Your task to perform on an android device: delete the emails in spam in the gmail app Image 0: 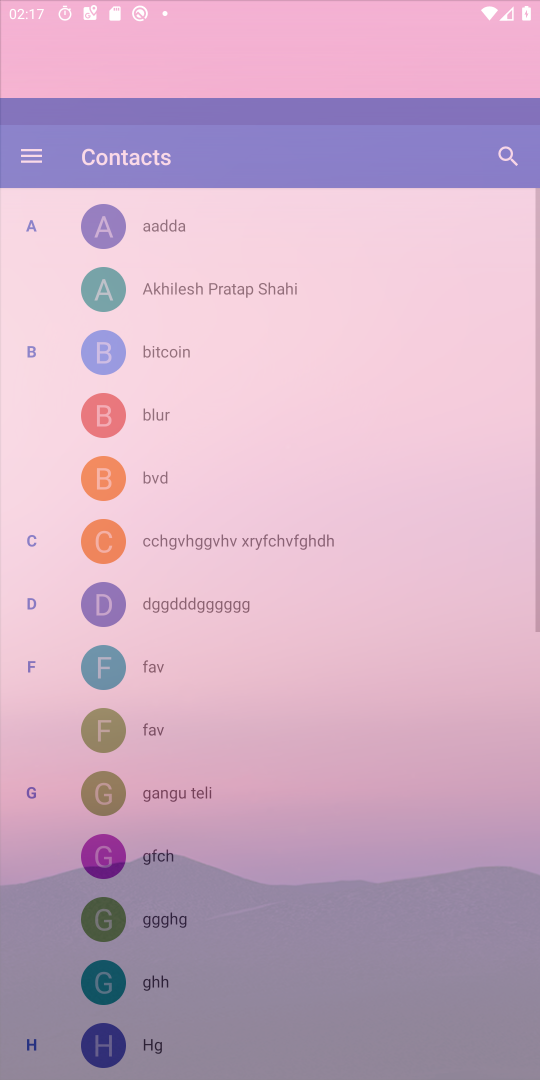
Step 0: press home button
Your task to perform on an android device: delete the emails in spam in the gmail app Image 1: 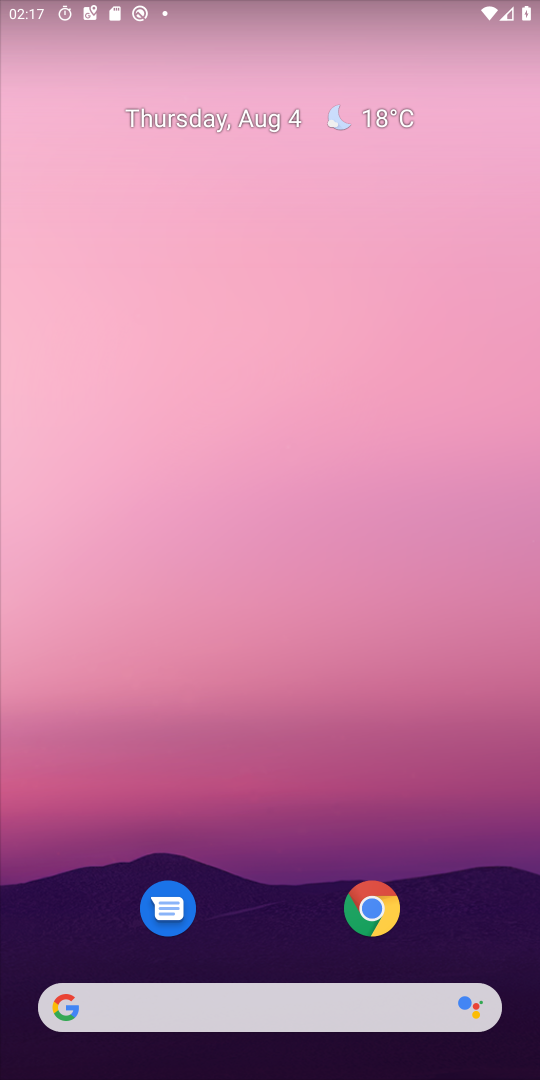
Step 1: drag from (318, 1047) to (283, 252)
Your task to perform on an android device: delete the emails in spam in the gmail app Image 2: 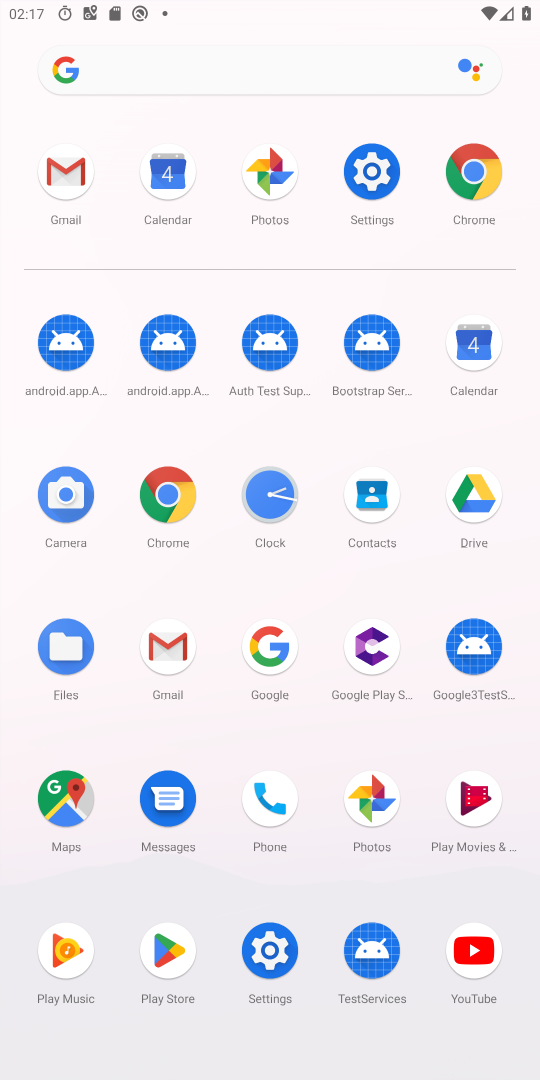
Step 2: click (176, 621)
Your task to perform on an android device: delete the emails in spam in the gmail app Image 3: 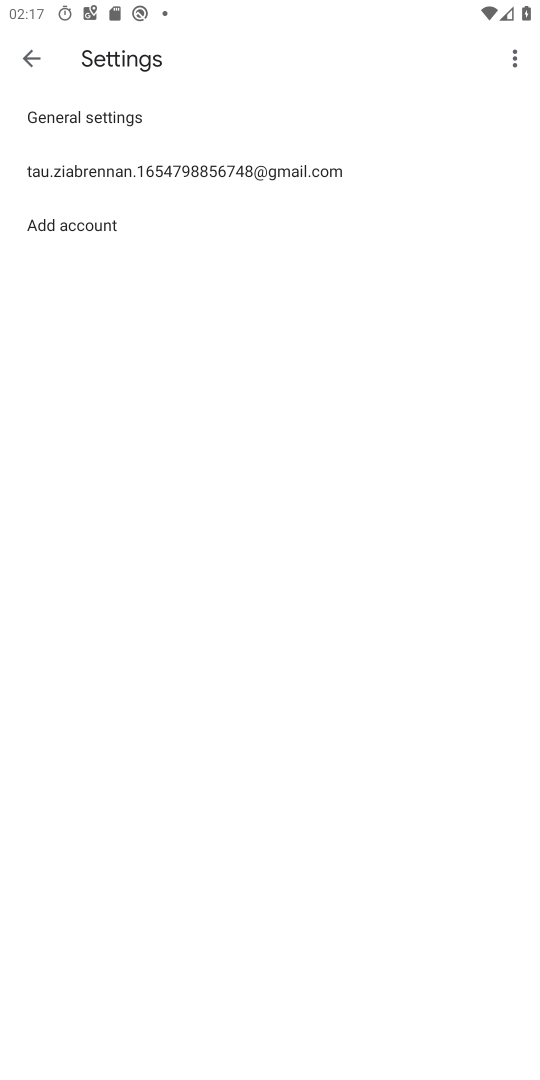
Step 3: click (28, 52)
Your task to perform on an android device: delete the emails in spam in the gmail app Image 4: 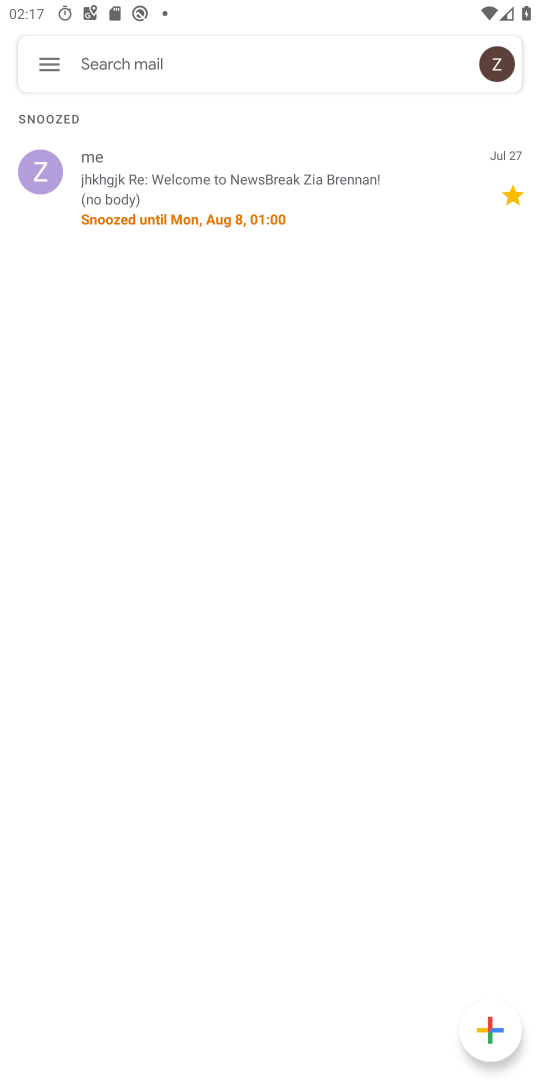
Step 4: click (35, 68)
Your task to perform on an android device: delete the emails in spam in the gmail app Image 5: 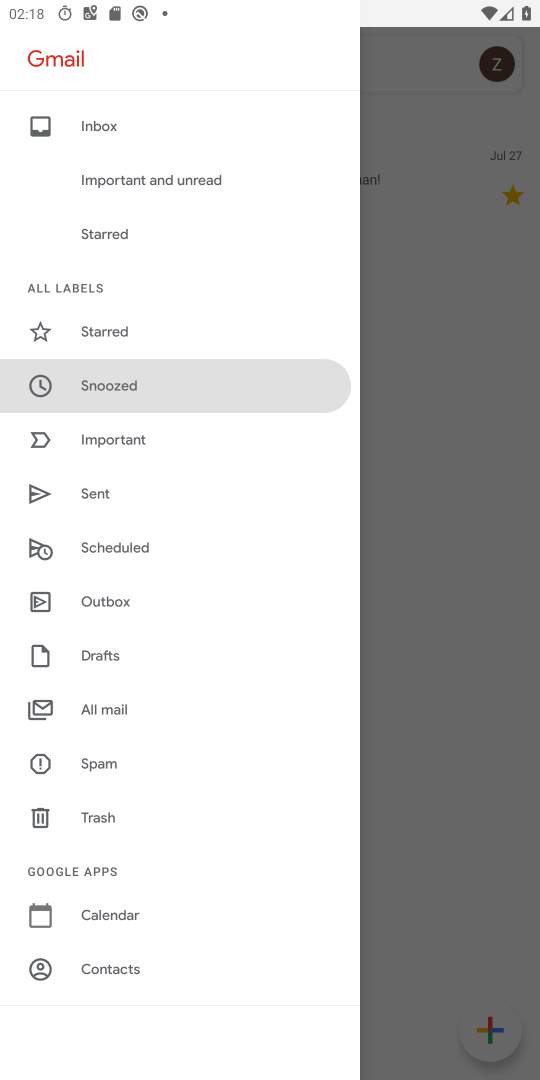
Step 5: click (129, 754)
Your task to perform on an android device: delete the emails in spam in the gmail app Image 6: 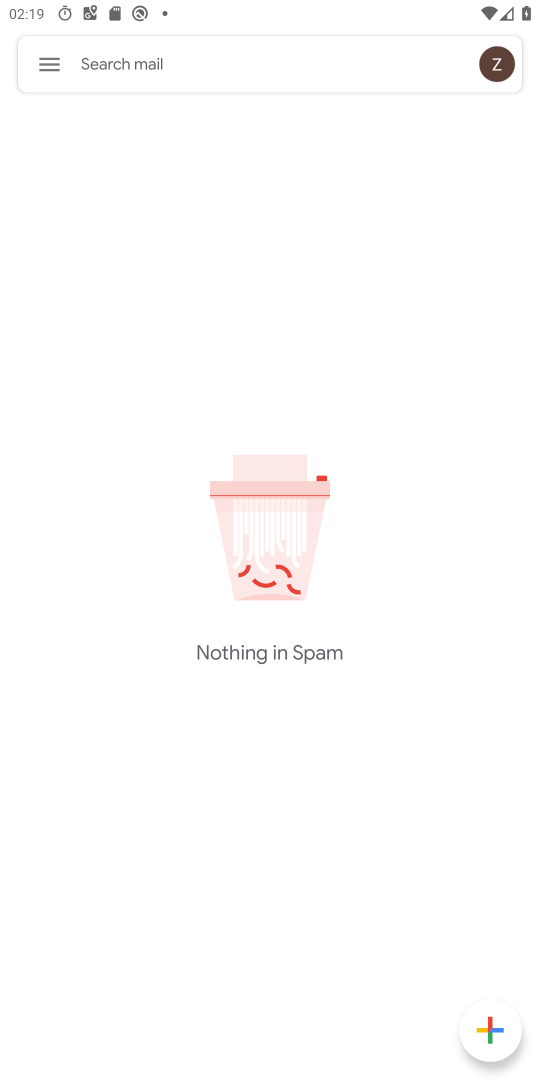
Step 6: task complete